Your task to perform on an android device: Open the map Image 0: 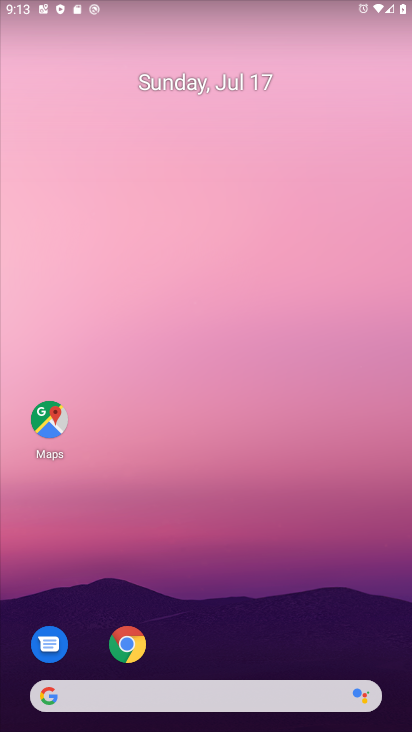
Step 0: drag from (172, 670) to (206, 101)
Your task to perform on an android device: Open the map Image 1: 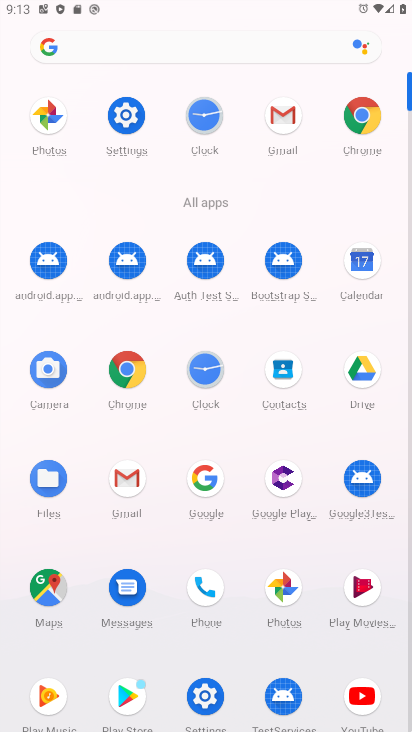
Step 1: click (49, 585)
Your task to perform on an android device: Open the map Image 2: 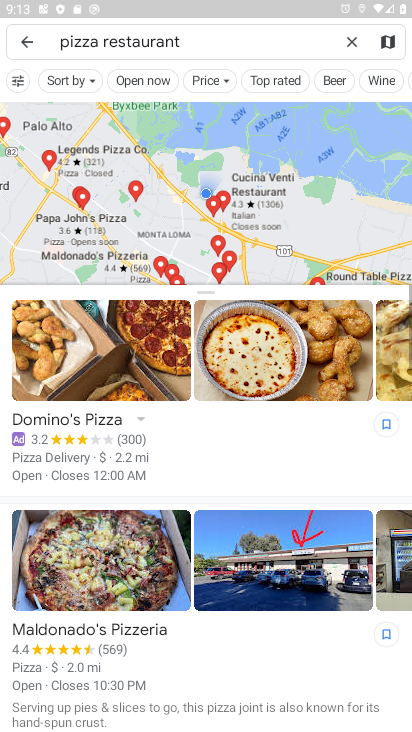
Step 2: click (24, 30)
Your task to perform on an android device: Open the map Image 3: 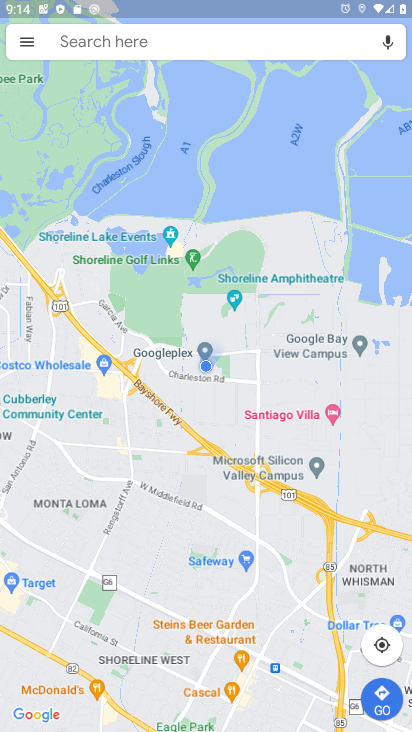
Step 3: task complete